Your task to perform on an android device: Open Google Image 0: 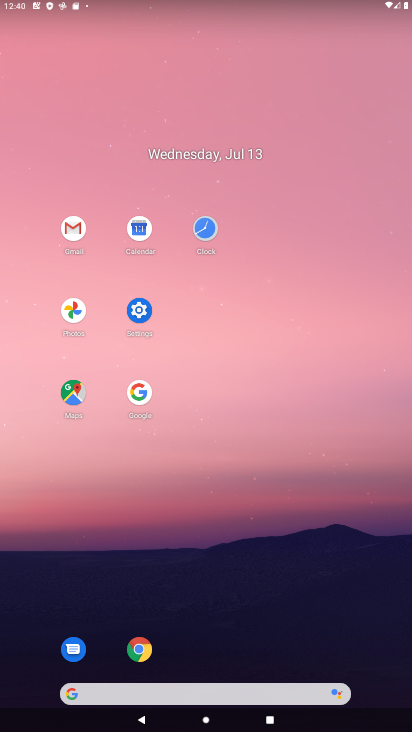
Step 0: click (137, 389)
Your task to perform on an android device: Open Google Image 1: 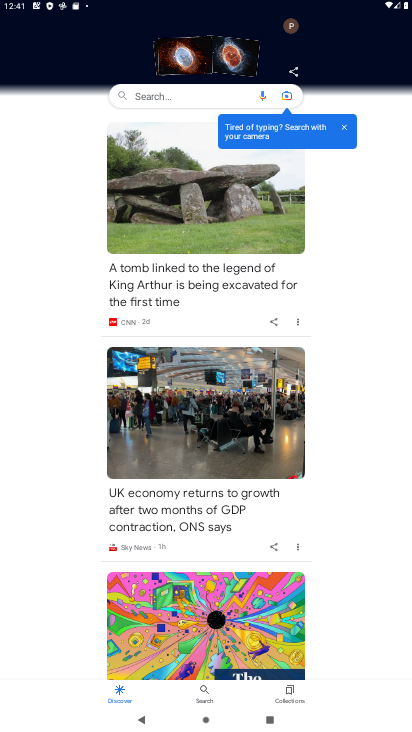
Step 1: task complete